Your task to perform on an android device: Go to Amazon Image 0: 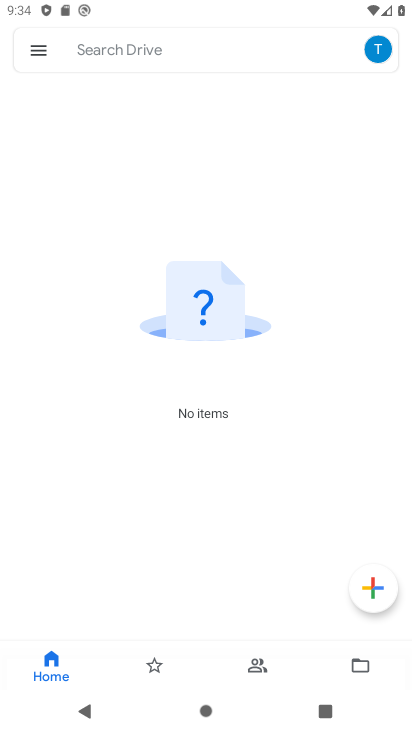
Step 0: press home button
Your task to perform on an android device: Go to Amazon Image 1: 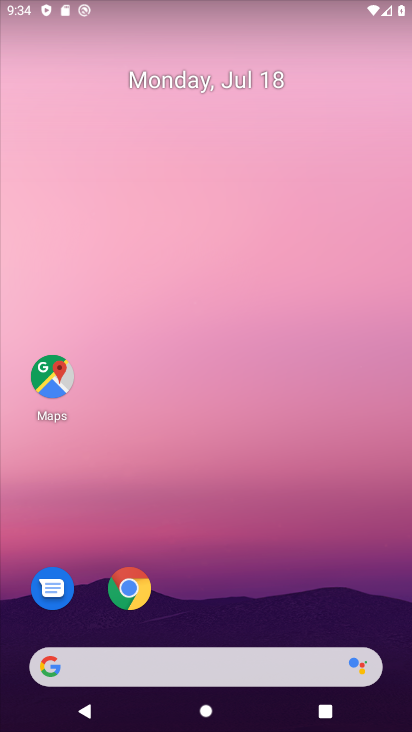
Step 1: click (120, 587)
Your task to perform on an android device: Go to Amazon Image 2: 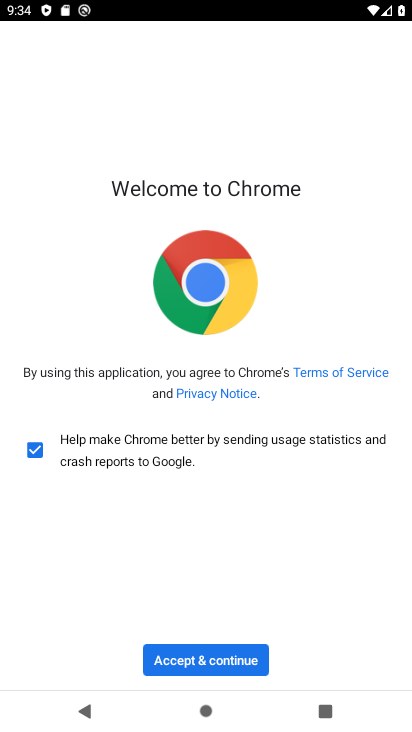
Step 2: click (181, 654)
Your task to perform on an android device: Go to Amazon Image 3: 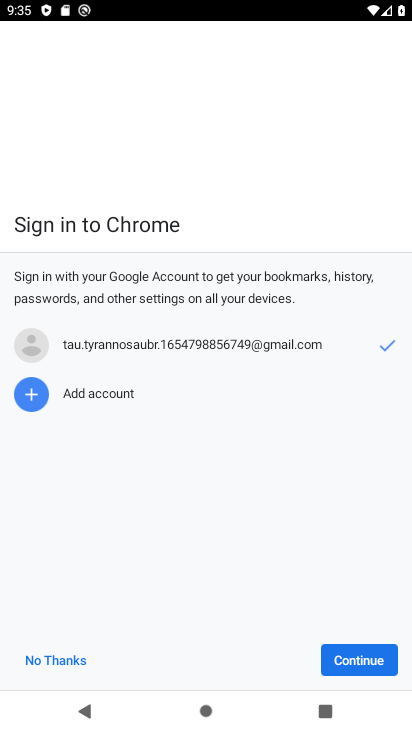
Step 3: click (332, 673)
Your task to perform on an android device: Go to Amazon Image 4: 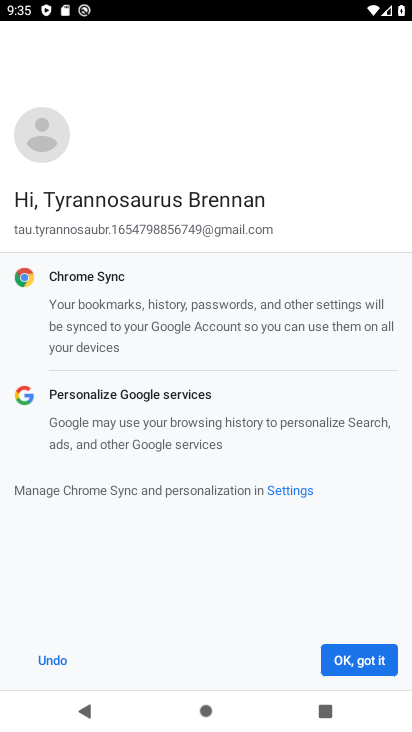
Step 4: click (332, 673)
Your task to perform on an android device: Go to Amazon Image 5: 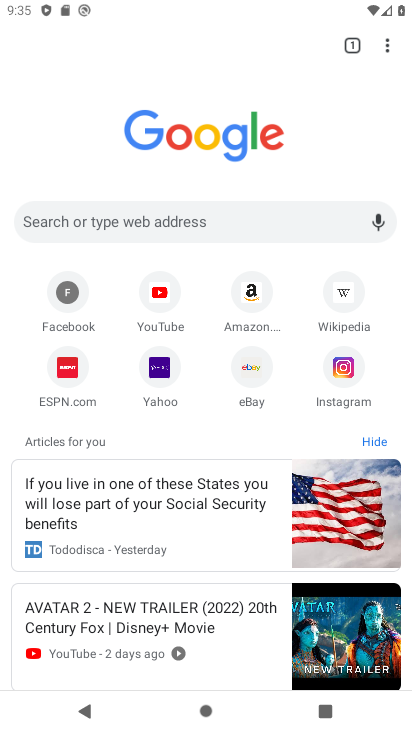
Step 5: click (260, 303)
Your task to perform on an android device: Go to Amazon Image 6: 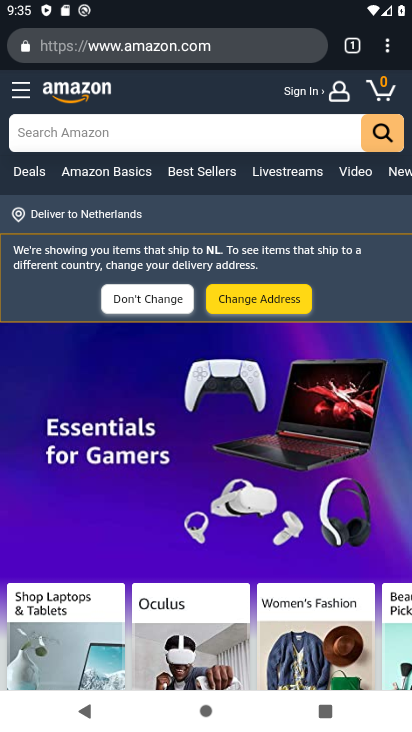
Step 6: task complete